Your task to perform on an android device: Go to Google maps Image 0: 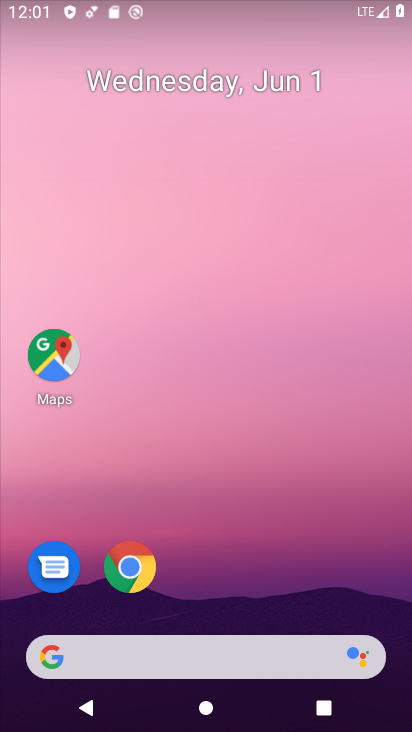
Step 0: click (61, 357)
Your task to perform on an android device: Go to Google maps Image 1: 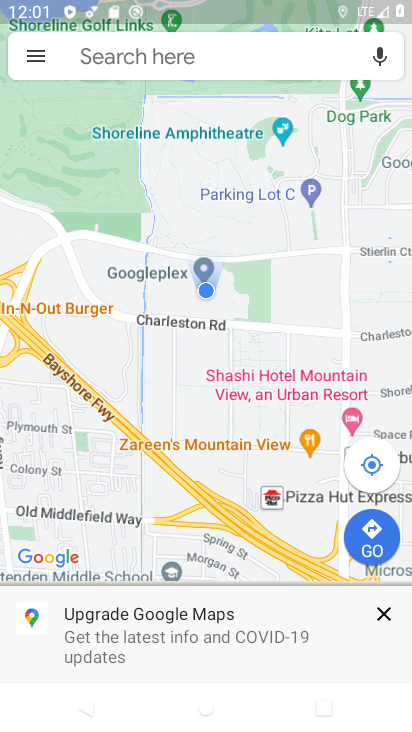
Step 1: click (384, 617)
Your task to perform on an android device: Go to Google maps Image 2: 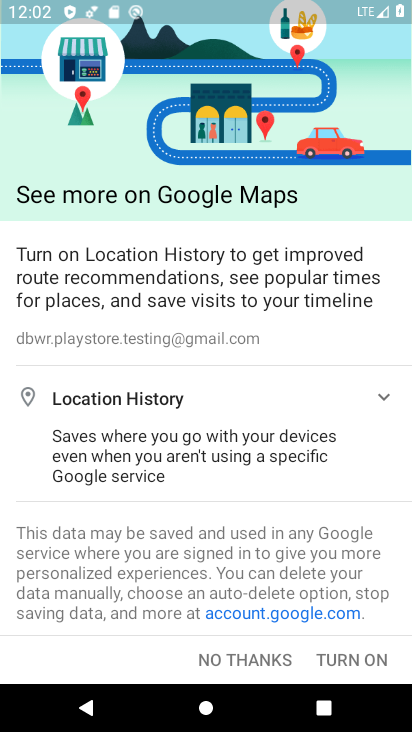
Step 2: click (263, 656)
Your task to perform on an android device: Go to Google maps Image 3: 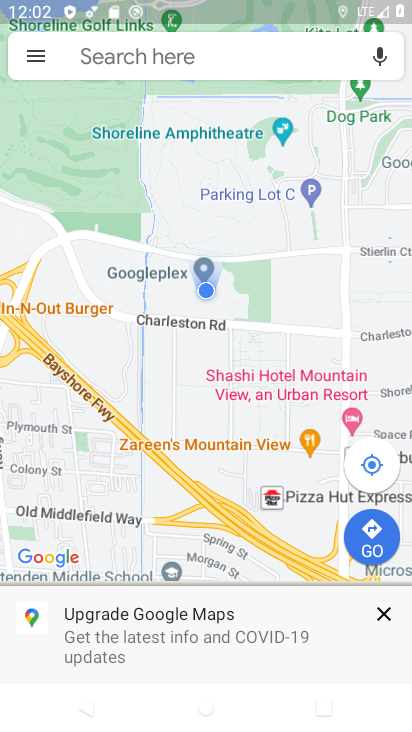
Step 3: task complete